Your task to perform on an android device: What's the weather? Image 0: 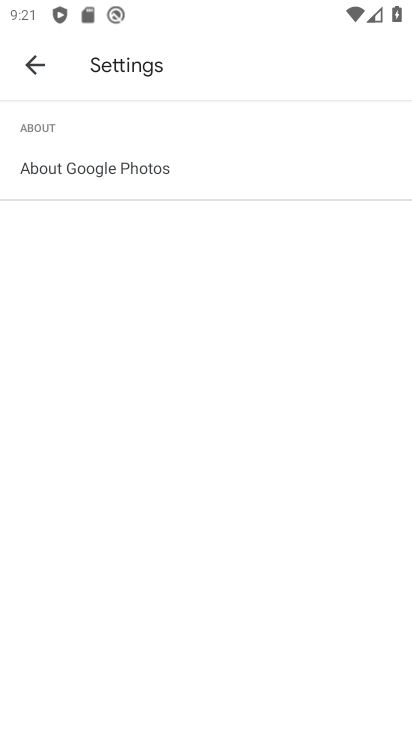
Step 0: press home button
Your task to perform on an android device: What's the weather? Image 1: 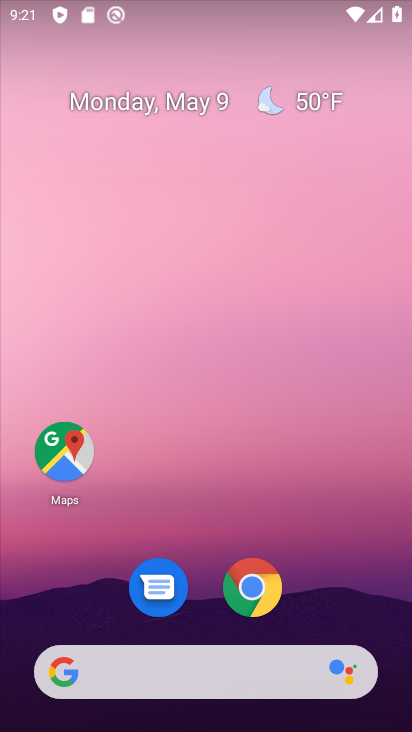
Step 1: click (269, 98)
Your task to perform on an android device: What's the weather? Image 2: 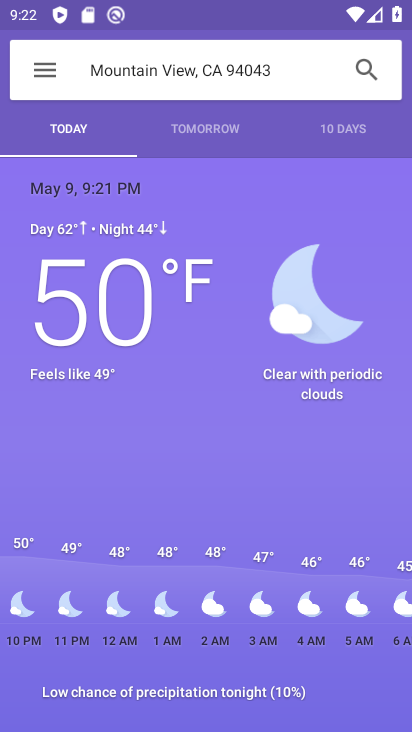
Step 2: task complete